Your task to perform on an android device: open the mobile data screen to see how much data has been used Image 0: 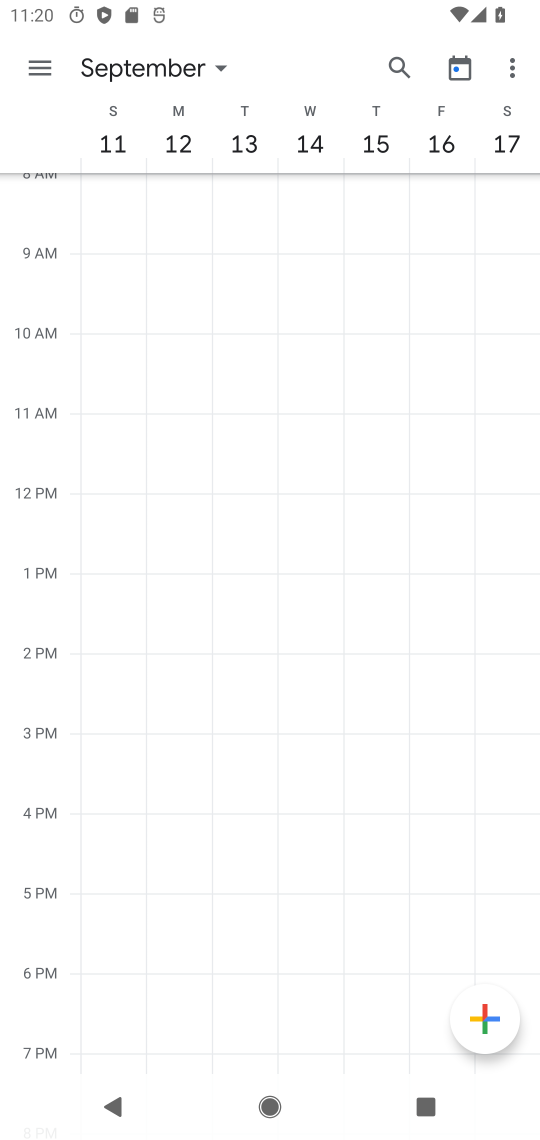
Step 0: press home button
Your task to perform on an android device: open the mobile data screen to see how much data has been used Image 1: 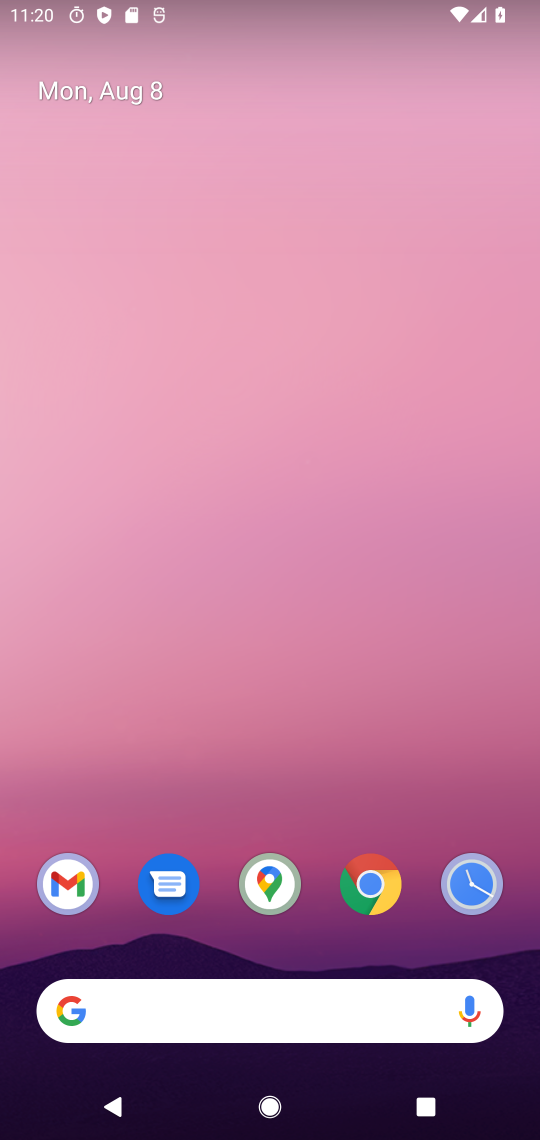
Step 1: drag from (301, 895) to (330, 311)
Your task to perform on an android device: open the mobile data screen to see how much data has been used Image 2: 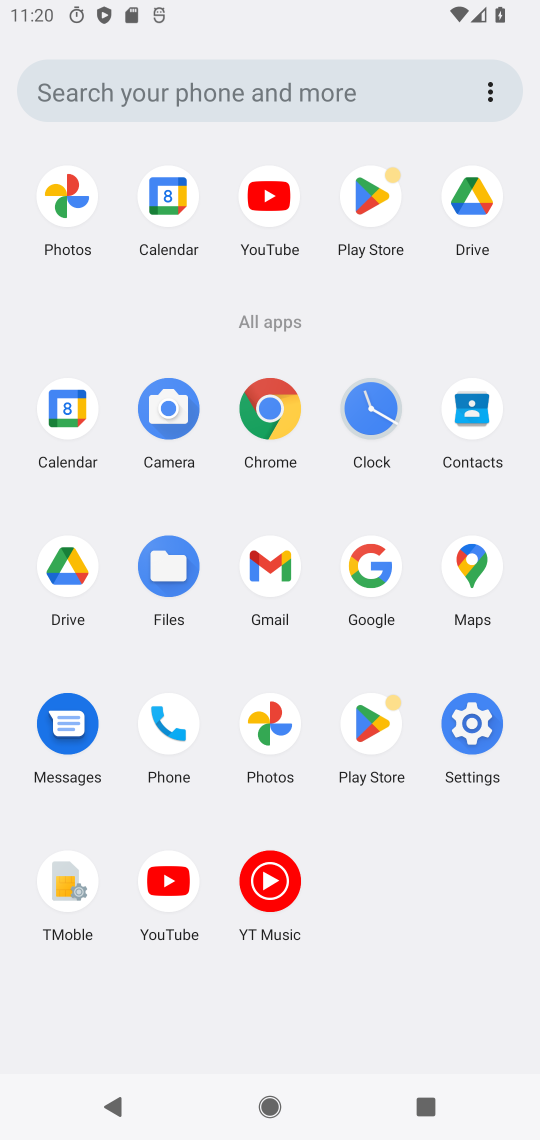
Step 2: click (469, 731)
Your task to perform on an android device: open the mobile data screen to see how much data has been used Image 3: 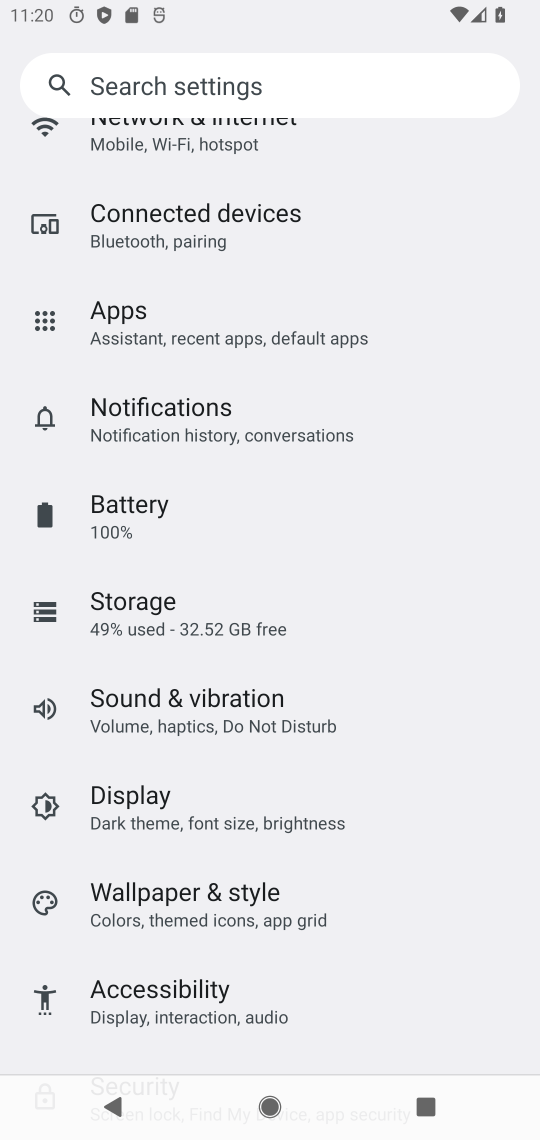
Step 3: click (239, 137)
Your task to perform on an android device: open the mobile data screen to see how much data has been used Image 4: 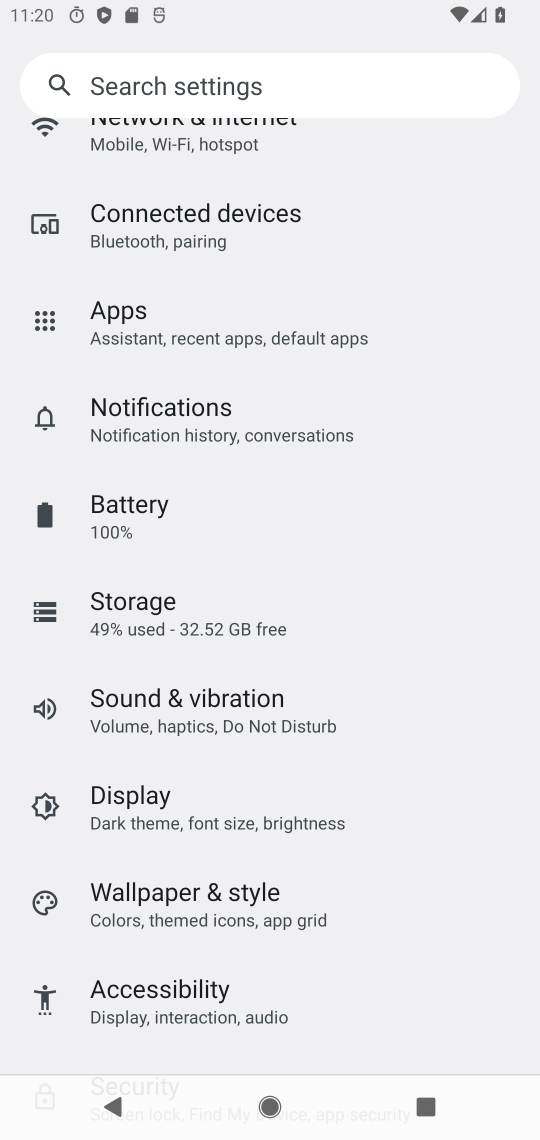
Step 4: click (212, 137)
Your task to perform on an android device: open the mobile data screen to see how much data has been used Image 5: 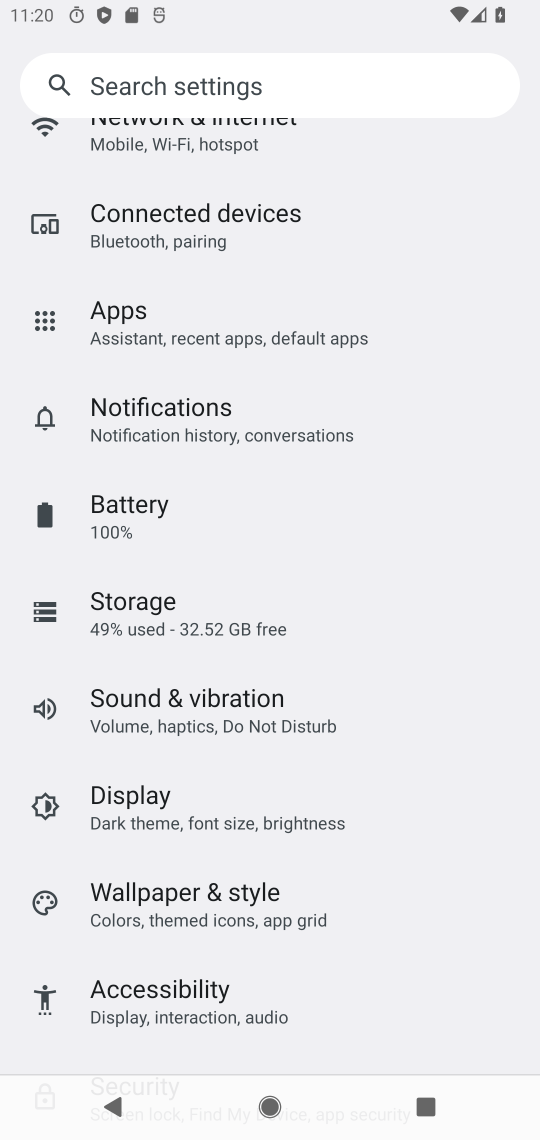
Step 5: click (201, 137)
Your task to perform on an android device: open the mobile data screen to see how much data has been used Image 6: 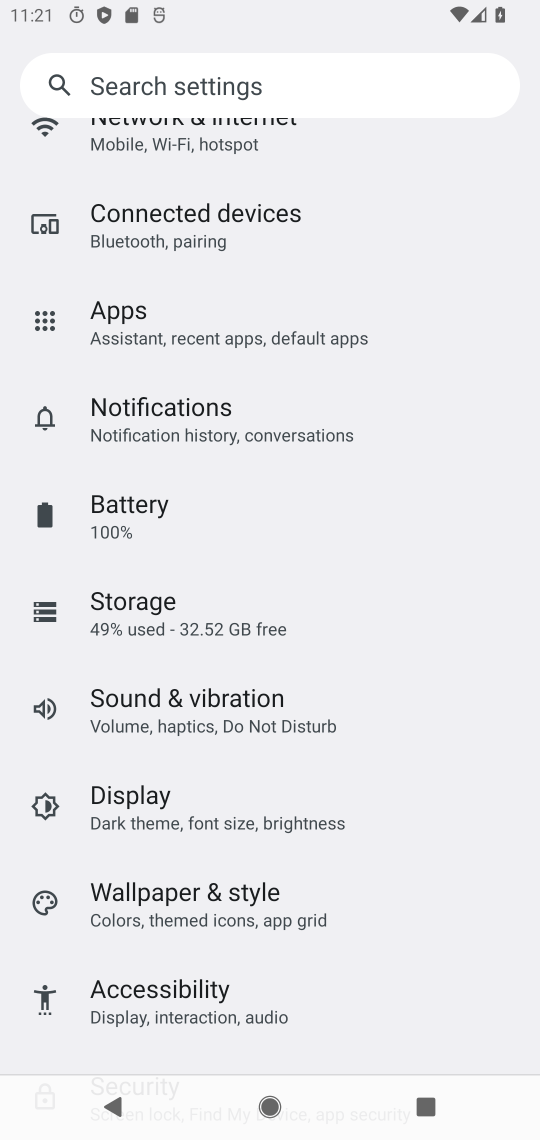
Step 6: click (201, 146)
Your task to perform on an android device: open the mobile data screen to see how much data has been used Image 7: 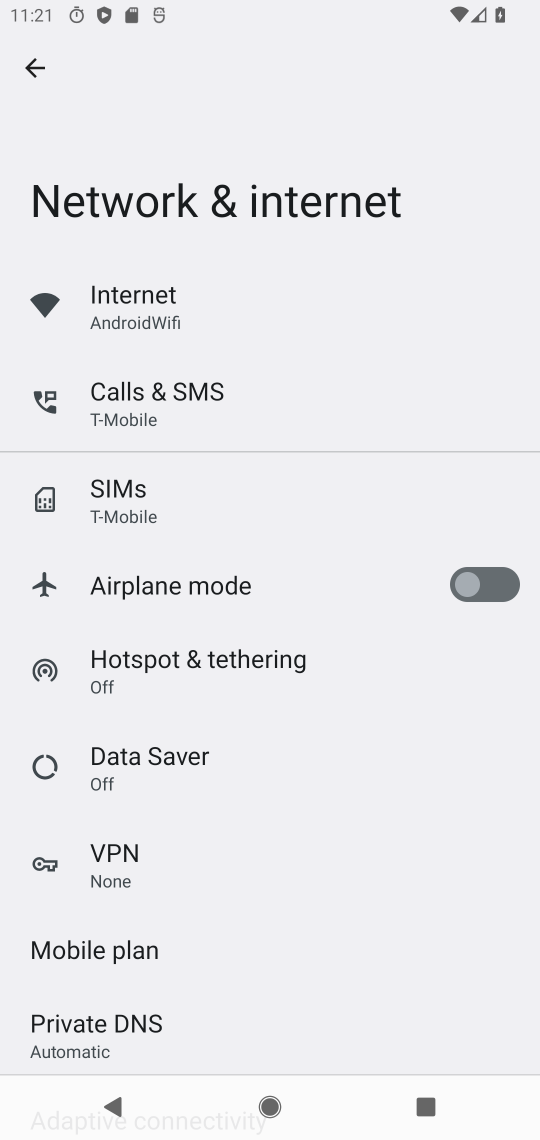
Step 7: click (167, 300)
Your task to perform on an android device: open the mobile data screen to see how much data has been used Image 8: 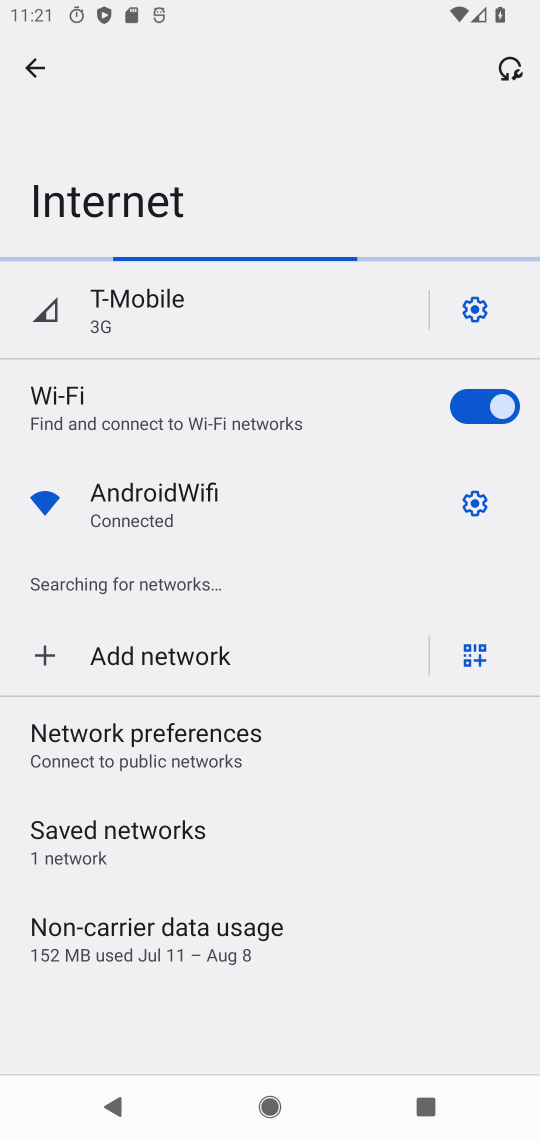
Step 8: click (110, 935)
Your task to perform on an android device: open the mobile data screen to see how much data has been used Image 9: 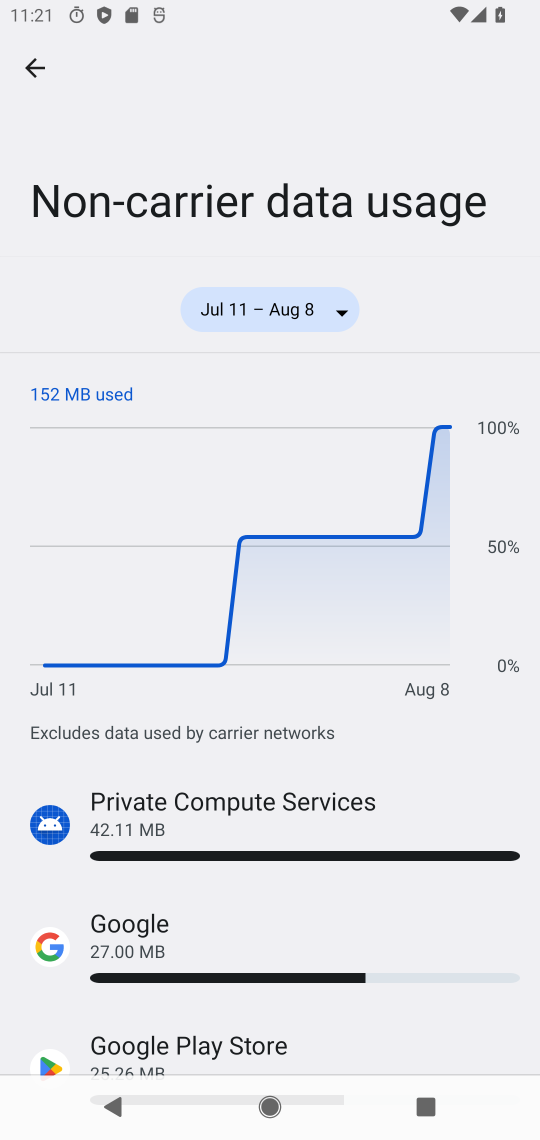
Step 9: task complete